Your task to perform on an android device: allow cookies in the chrome app Image 0: 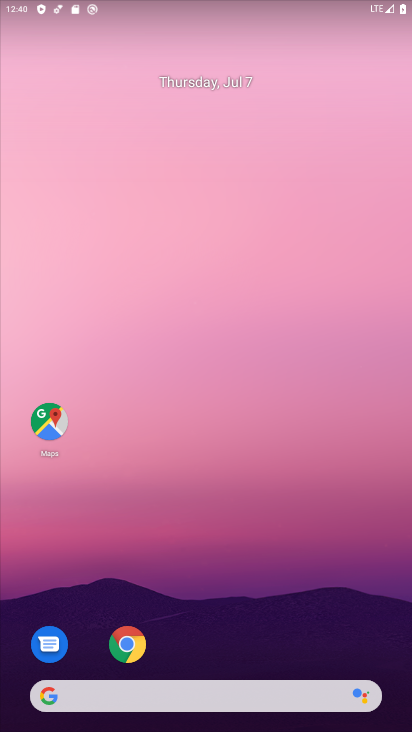
Step 0: click (142, 647)
Your task to perform on an android device: allow cookies in the chrome app Image 1: 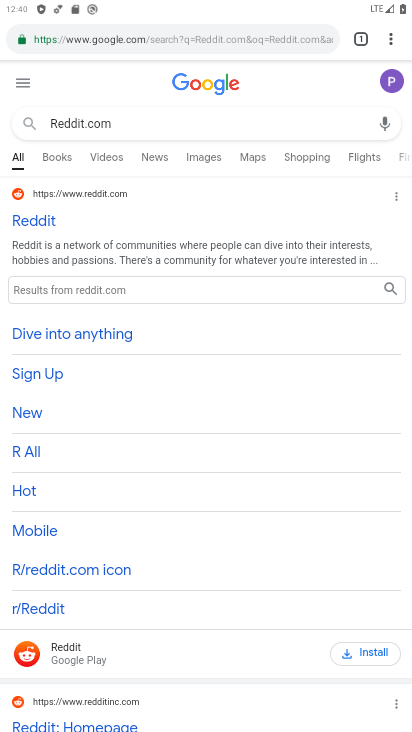
Step 1: click (393, 33)
Your task to perform on an android device: allow cookies in the chrome app Image 2: 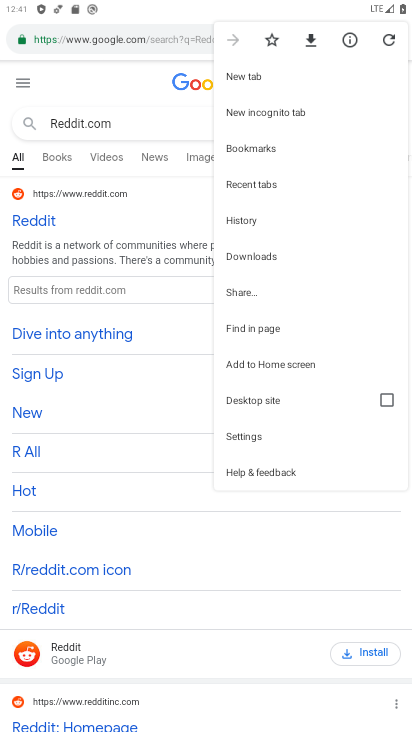
Step 2: click (233, 439)
Your task to perform on an android device: allow cookies in the chrome app Image 3: 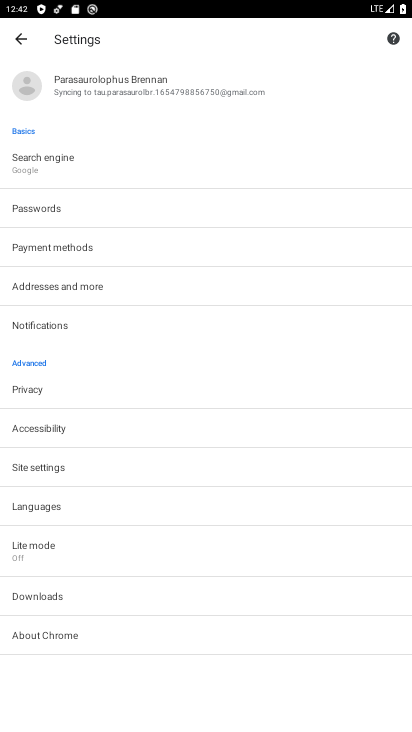
Step 3: click (44, 469)
Your task to perform on an android device: allow cookies in the chrome app Image 4: 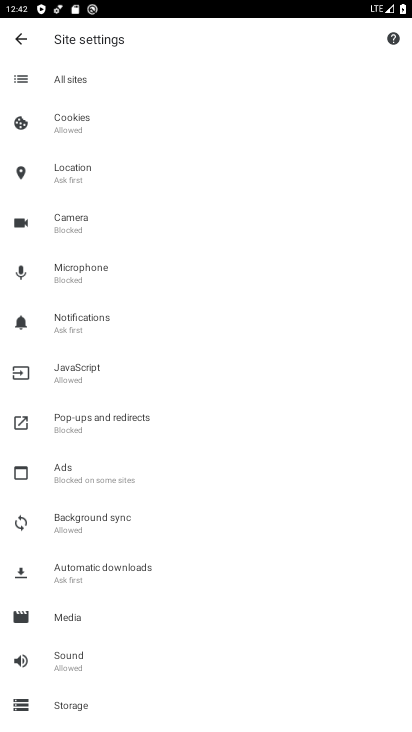
Step 4: click (73, 111)
Your task to perform on an android device: allow cookies in the chrome app Image 5: 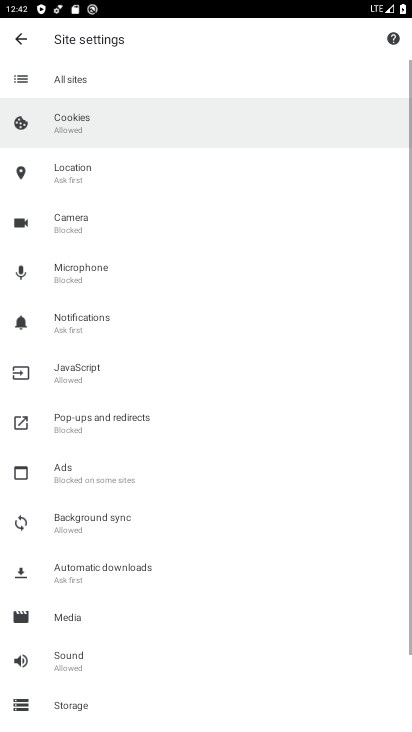
Step 5: click (79, 123)
Your task to perform on an android device: allow cookies in the chrome app Image 6: 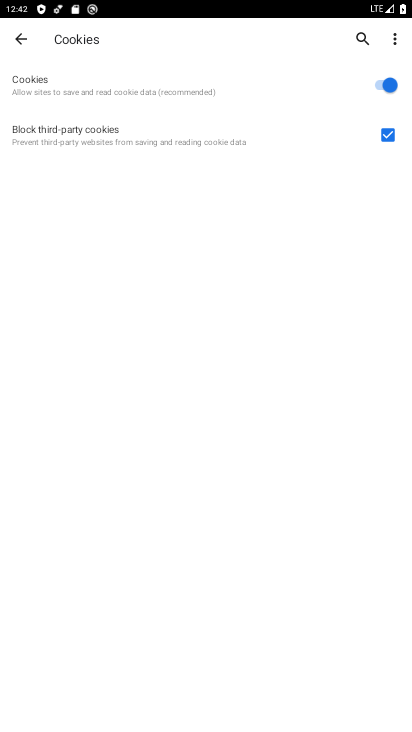
Step 6: task complete